Your task to perform on an android device: toggle location history Image 0: 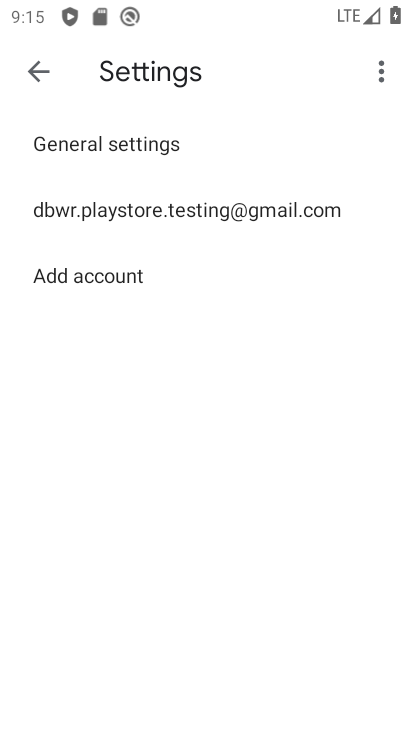
Step 0: press home button
Your task to perform on an android device: toggle location history Image 1: 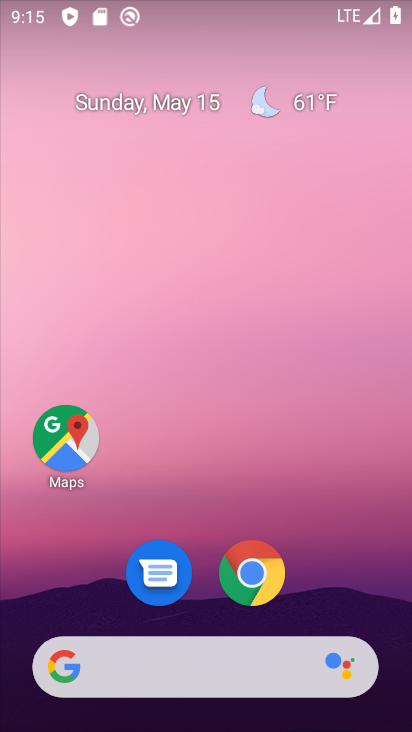
Step 1: drag from (30, 543) to (266, 38)
Your task to perform on an android device: toggle location history Image 2: 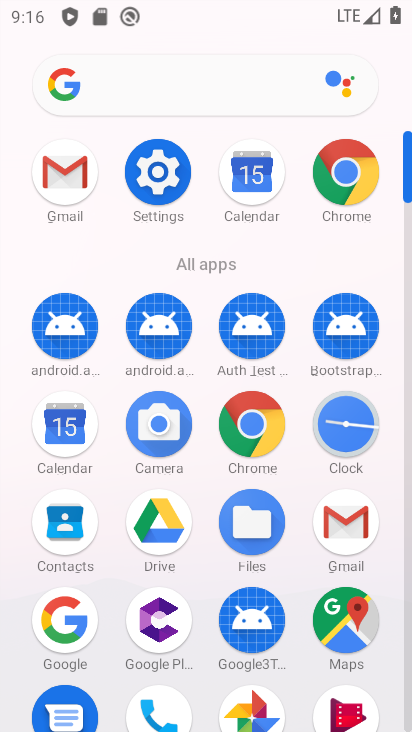
Step 2: click (155, 183)
Your task to perform on an android device: toggle location history Image 3: 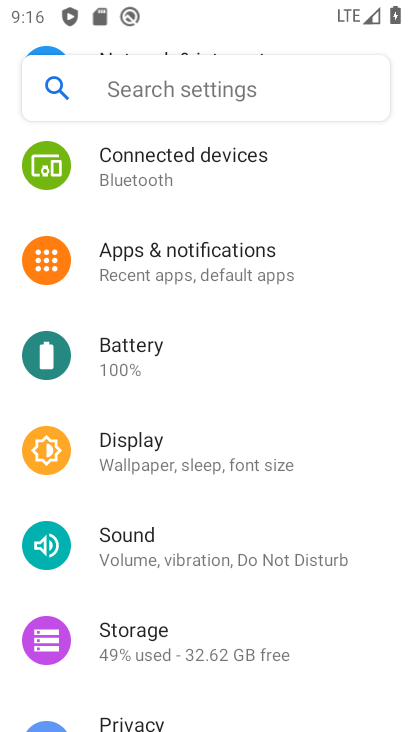
Step 3: drag from (25, 613) to (232, 137)
Your task to perform on an android device: toggle location history Image 4: 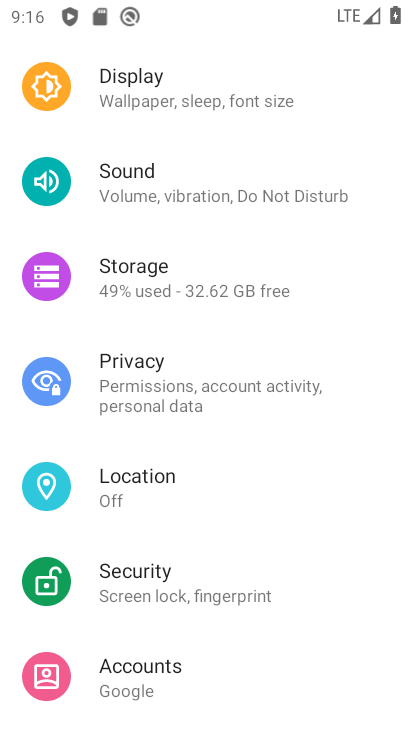
Step 4: click (132, 474)
Your task to perform on an android device: toggle location history Image 5: 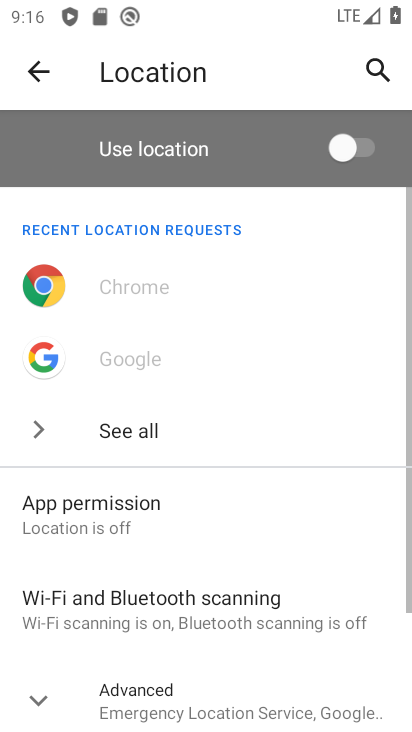
Step 5: click (336, 151)
Your task to perform on an android device: toggle location history Image 6: 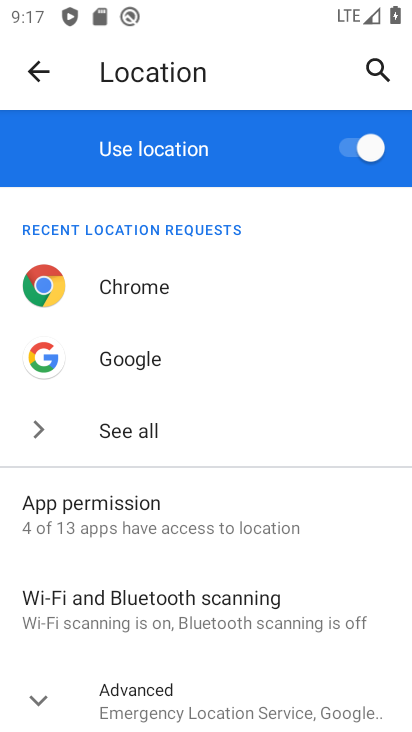
Step 6: task complete